Your task to perform on an android device: turn notification dots off Image 0: 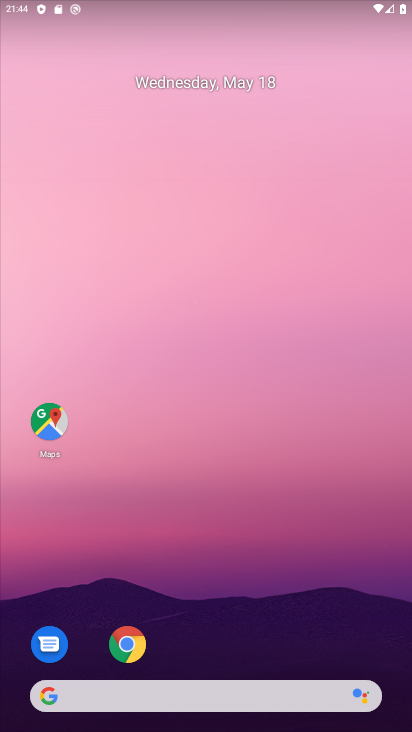
Step 0: drag from (318, 623) to (288, 26)
Your task to perform on an android device: turn notification dots off Image 1: 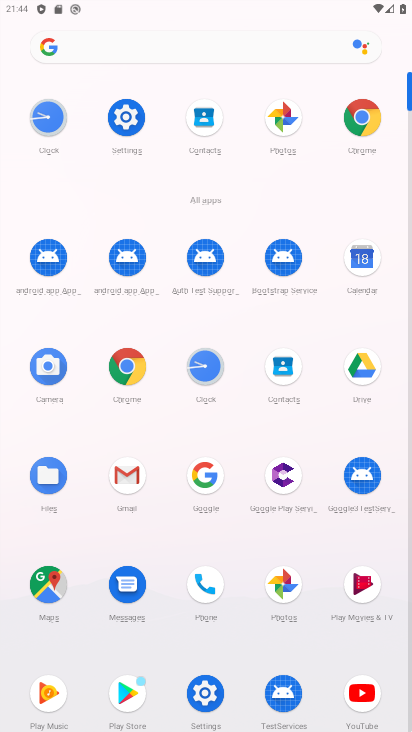
Step 1: click (130, 115)
Your task to perform on an android device: turn notification dots off Image 2: 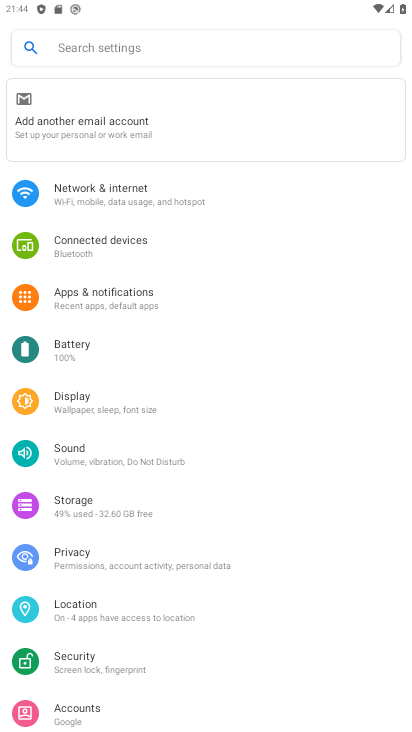
Step 2: click (102, 301)
Your task to perform on an android device: turn notification dots off Image 3: 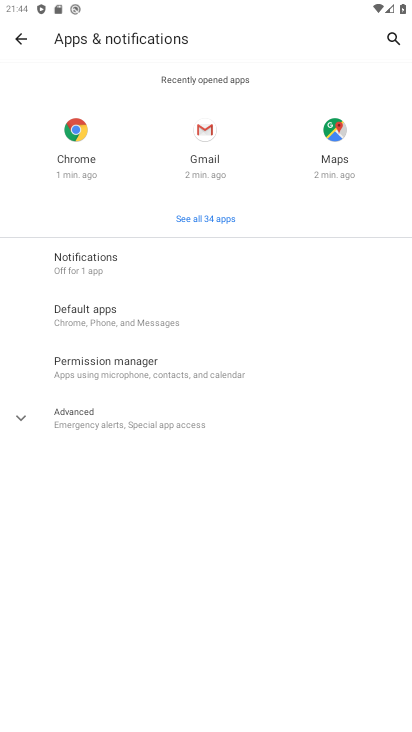
Step 3: click (133, 274)
Your task to perform on an android device: turn notification dots off Image 4: 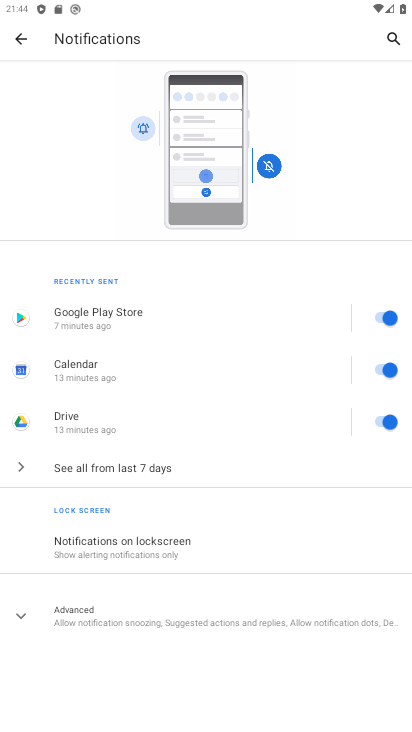
Step 4: click (190, 616)
Your task to perform on an android device: turn notification dots off Image 5: 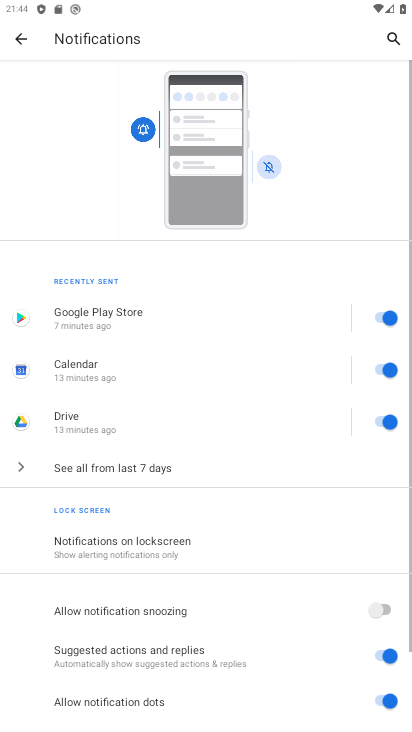
Step 5: drag from (230, 601) to (371, 155)
Your task to perform on an android device: turn notification dots off Image 6: 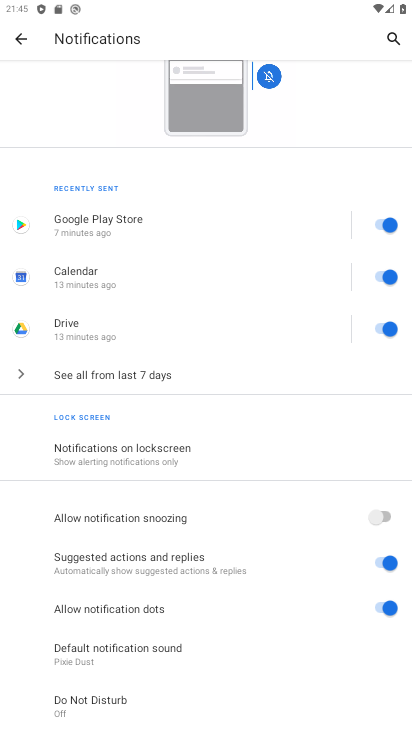
Step 6: click (387, 602)
Your task to perform on an android device: turn notification dots off Image 7: 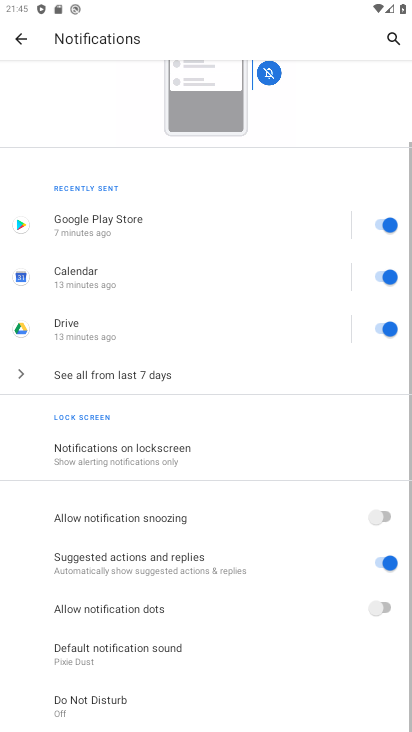
Step 7: task complete